Your task to perform on an android device: Go to Yahoo.com Image 0: 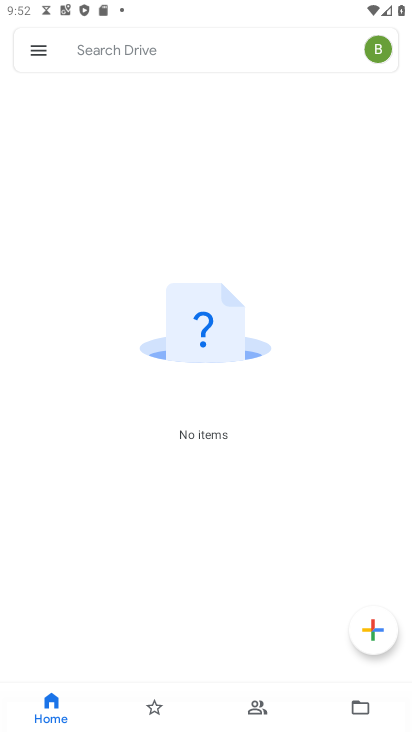
Step 0: press home button
Your task to perform on an android device: Go to Yahoo.com Image 1: 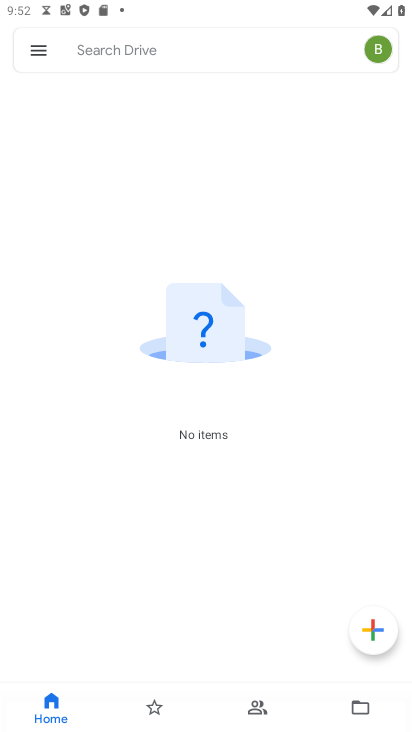
Step 1: press home button
Your task to perform on an android device: Go to Yahoo.com Image 2: 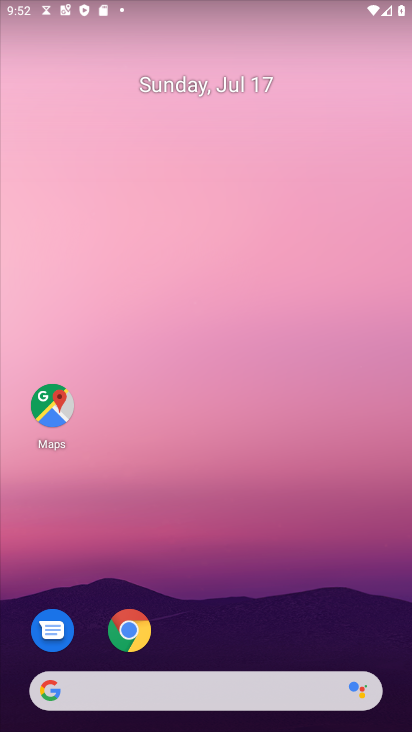
Step 2: drag from (271, 677) to (305, 5)
Your task to perform on an android device: Go to Yahoo.com Image 3: 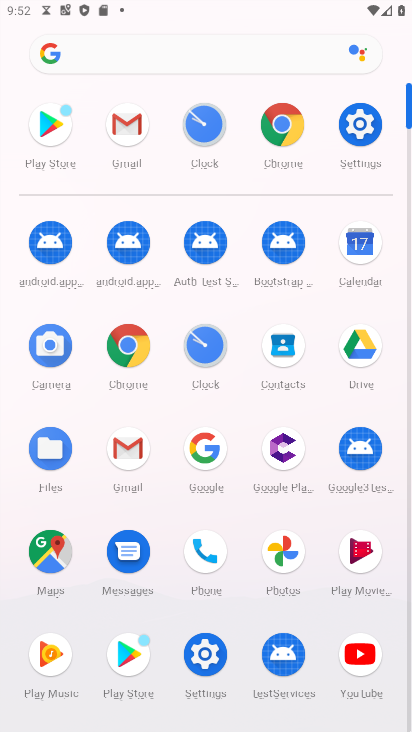
Step 3: click (135, 346)
Your task to perform on an android device: Go to Yahoo.com Image 4: 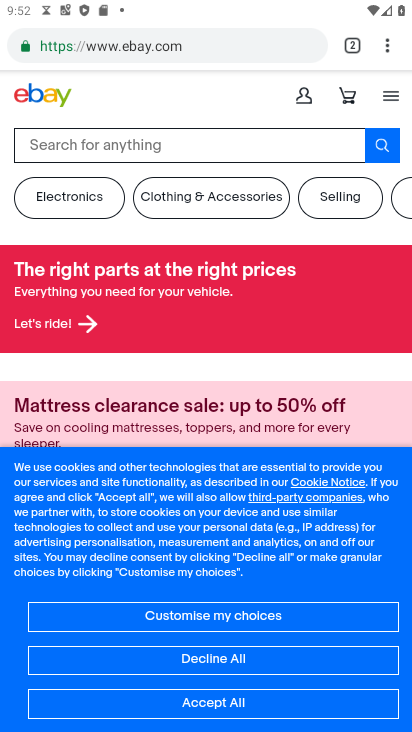
Step 4: click (258, 47)
Your task to perform on an android device: Go to Yahoo.com Image 5: 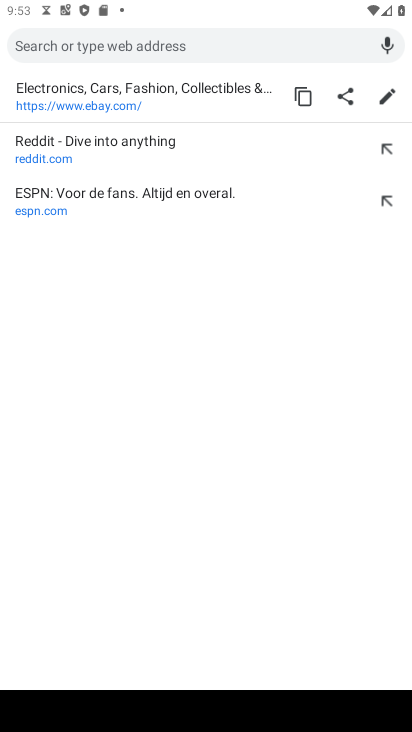
Step 5: type "yahoo.com"
Your task to perform on an android device: Go to Yahoo.com Image 6: 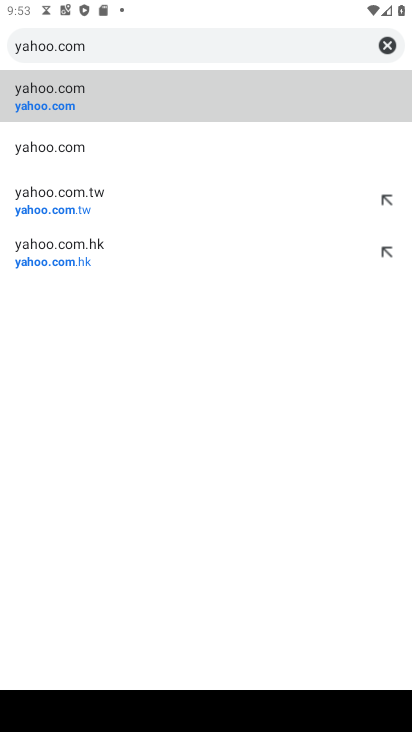
Step 6: click (327, 105)
Your task to perform on an android device: Go to Yahoo.com Image 7: 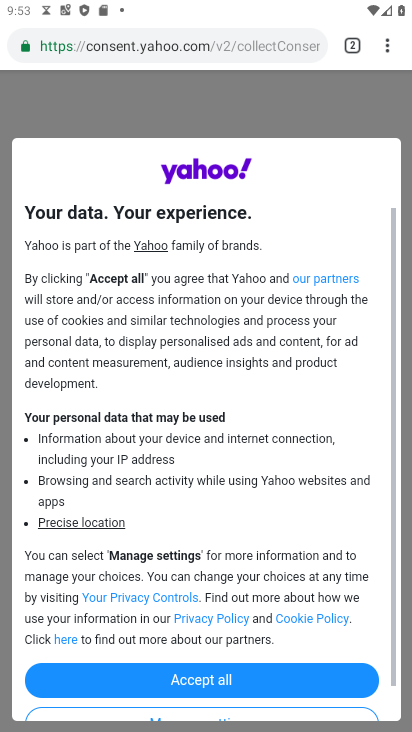
Step 7: task complete